Your task to perform on an android device: Open calendar and show me the third week of next month Image 0: 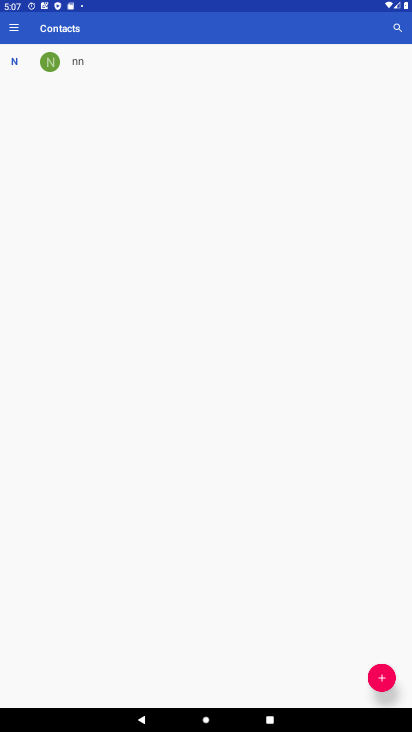
Step 0: drag from (226, 156) to (203, 93)
Your task to perform on an android device: Open calendar and show me the third week of next month Image 1: 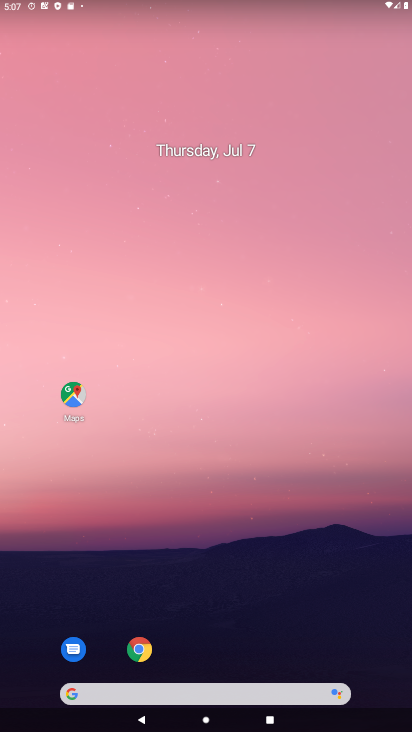
Step 1: press home button
Your task to perform on an android device: Open calendar and show me the third week of next month Image 2: 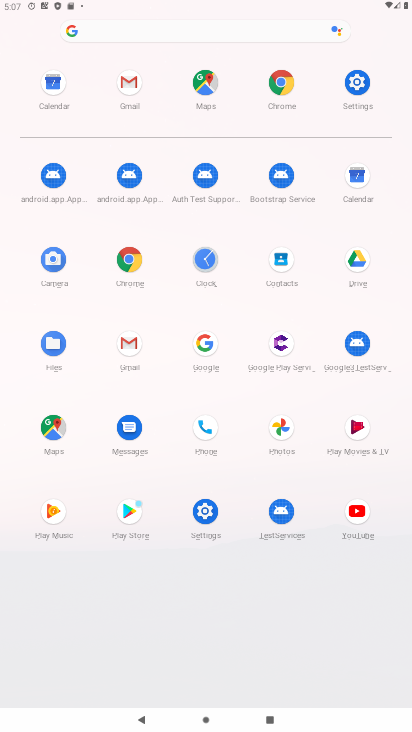
Step 2: drag from (358, 680) to (259, 140)
Your task to perform on an android device: Open calendar and show me the third week of next month Image 3: 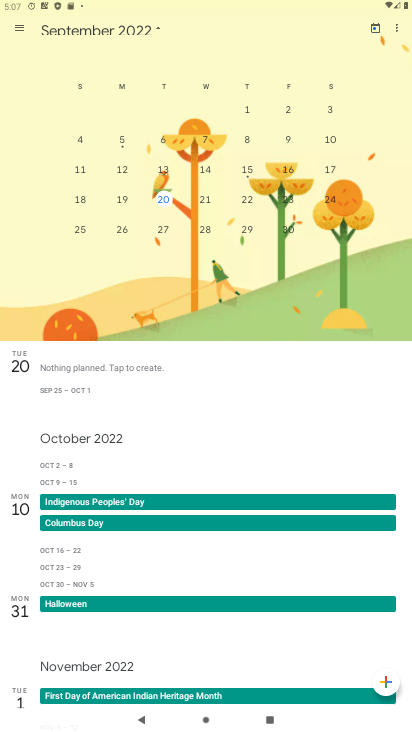
Step 3: click (356, 181)
Your task to perform on an android device: Open calendar and show me the third week of next month Image 4: 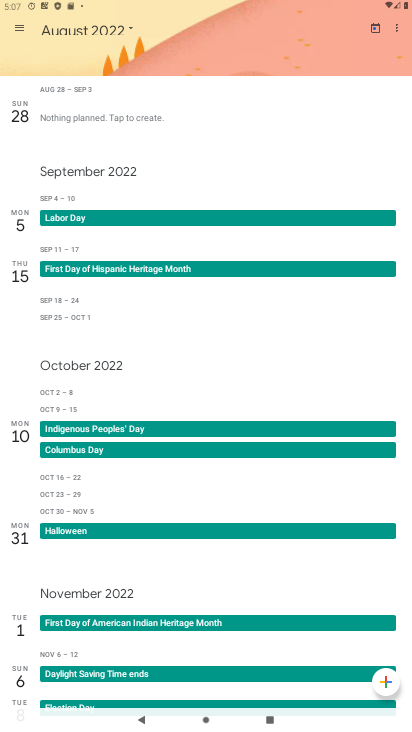
Step 4: click (82, 32)
Your task to perform on an android device: Open calendar and show me the third week of next month Image 5: 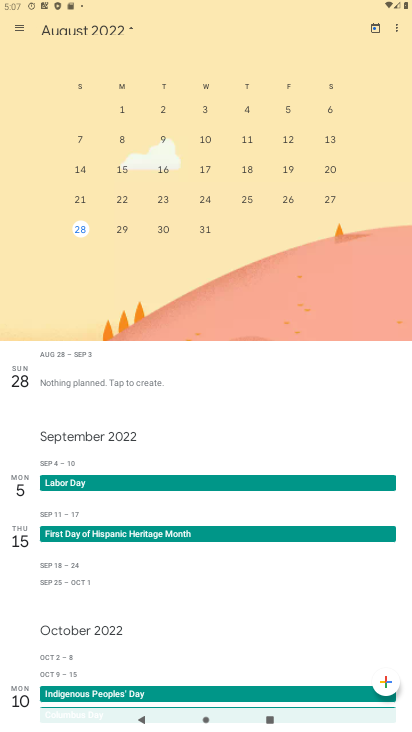
Step 5: drag from (328, 226) to (50, 174)
Your task to perform on an android device: Open calendar and show me the third week of next month Image 6: 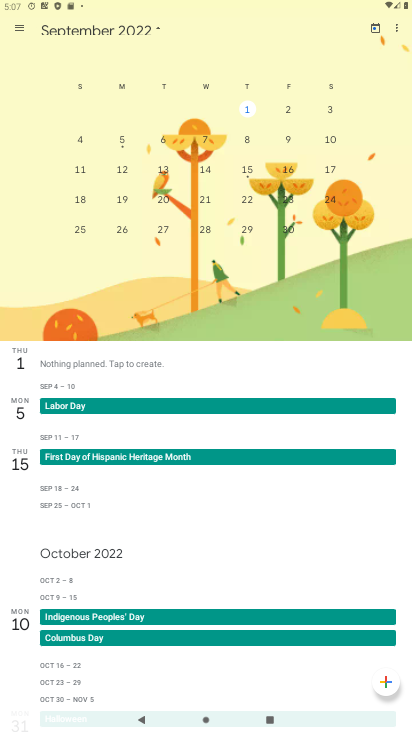
Step 6: click (158, 194)
Your task to perform on an android device: Open calendar and show me the third week of next month Image 7: 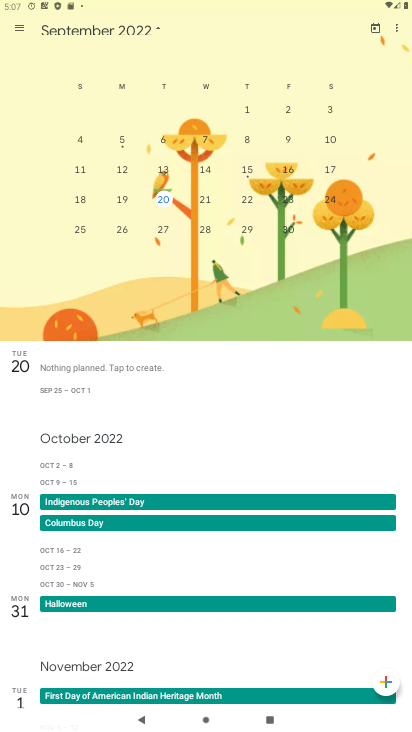
Step 7: task complete